Your task to perform on an android device: What's on my calendar today? Image 0: 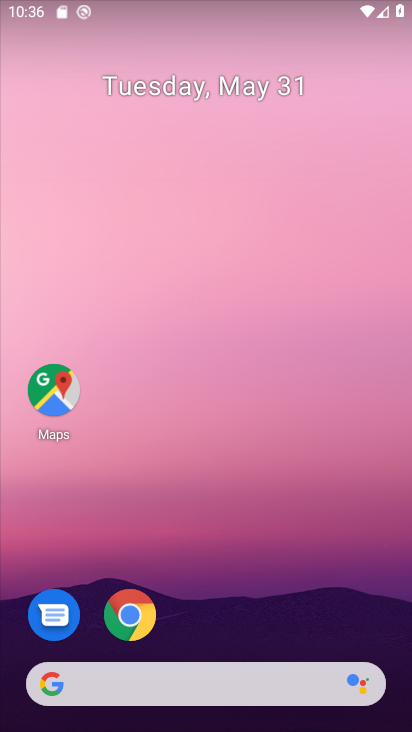
Step 0: drag from (225, 624) to (283, 19)
Your task to perform on an android device: What's on my calendar today? Image 1: 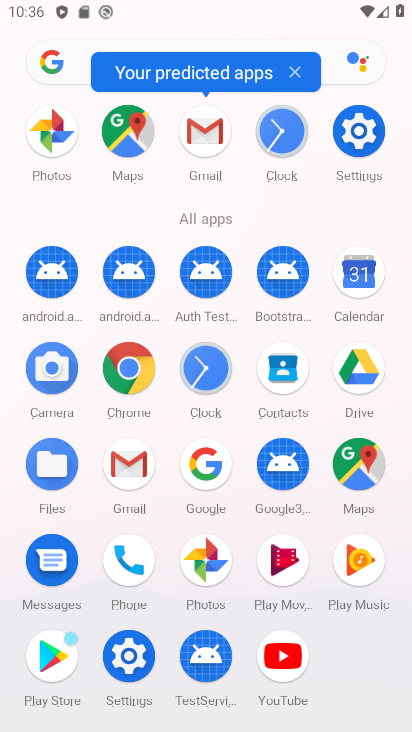
Step 1: click (348, 277)
Your task to perform on an android device: What's on my calendar today? Image 2: 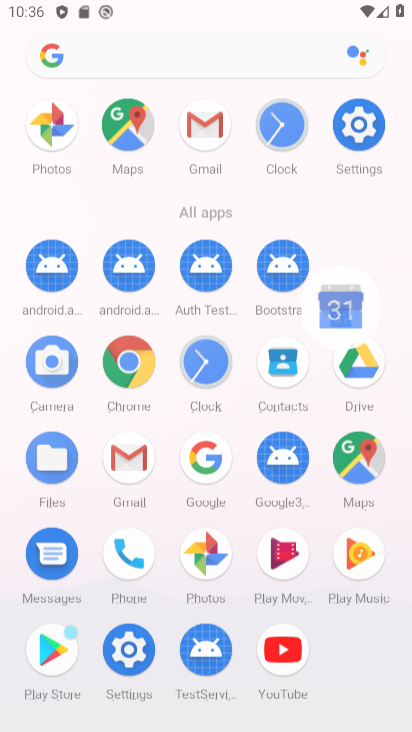
Step 2: click (349, 276)
Your task to perform on an android device: What's on my calendar today? Image 3: 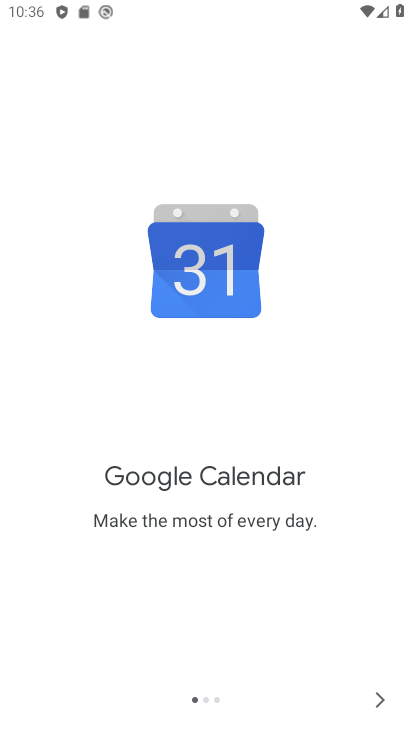
Step 3: click (377, 691)
Your task to perform on an android device: What's on my calendar today? Image 4: 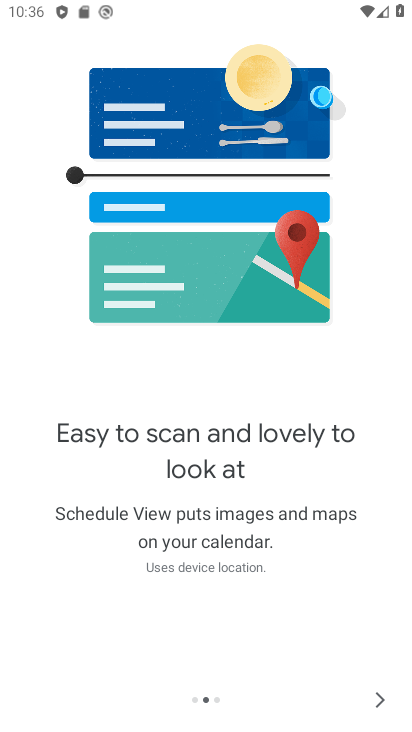
Step 4: click (377, 691)
Your task to perform on an android device: What's on my calendar today? Image 5: 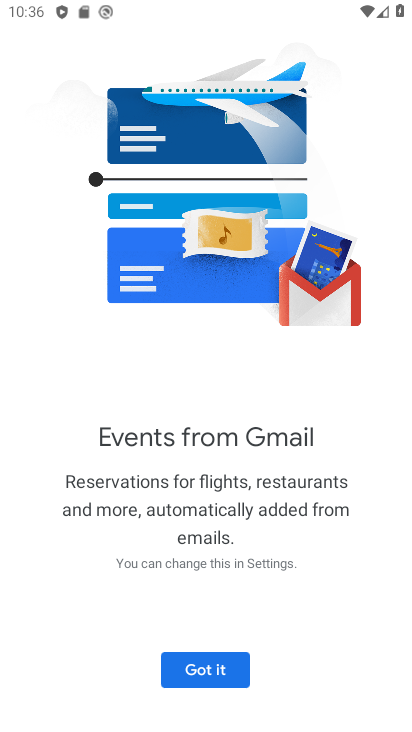
Step 5: click (174, 671)
Your task to perform on an android device: What's on my calendar today? Image 6: 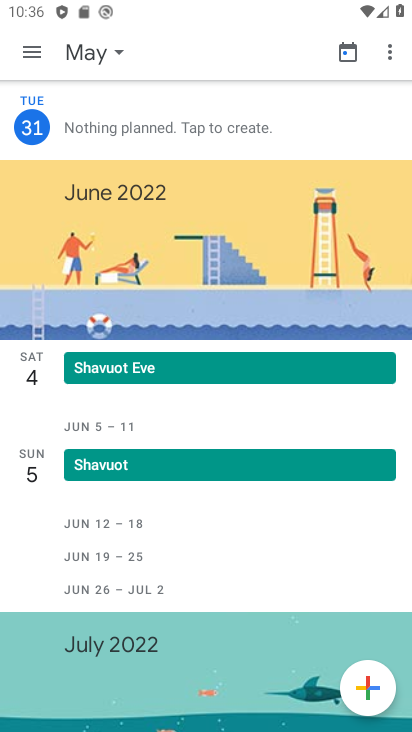
Step 6: task complete